Your task to perform on an android device: Open notification settings Image 0: 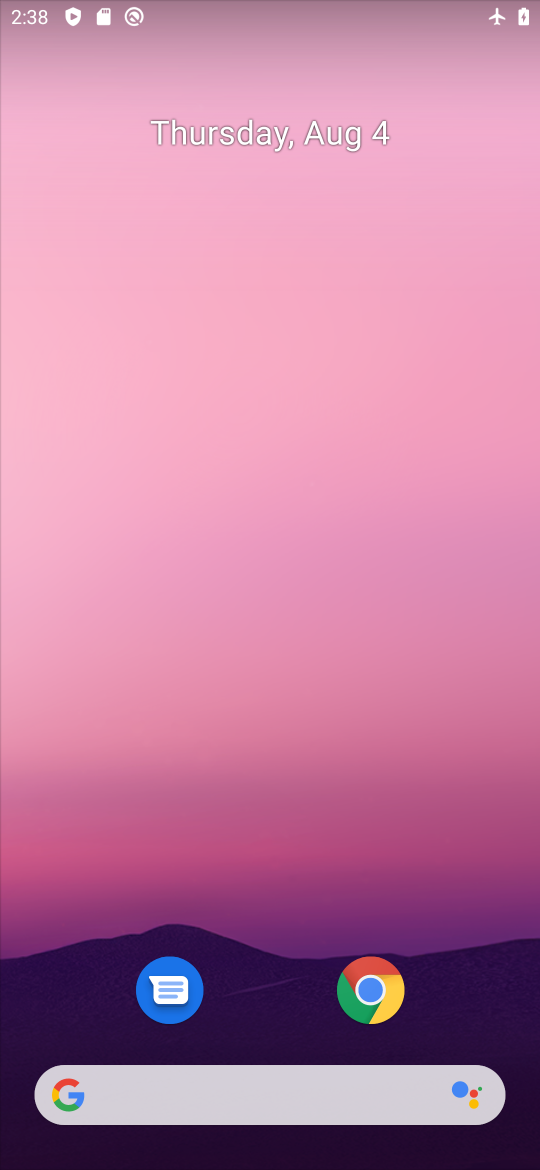
Step 0: drag from (286, 1062) to (287, 132)
Your task to perform on an android device: Open notification settings Image 1: 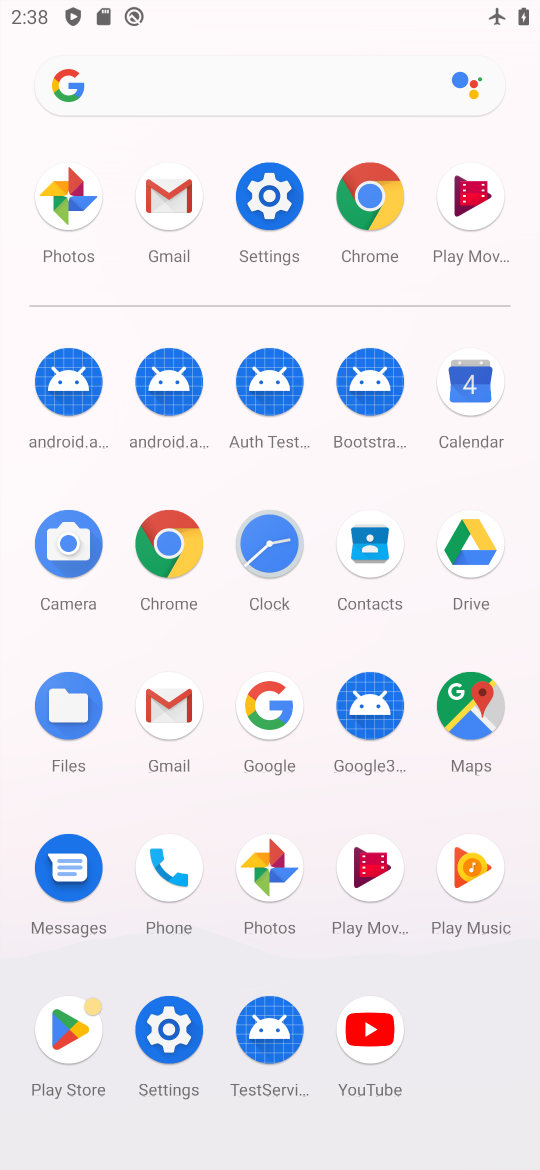
Step 1: click (281, 303)
Your task to perform on an android device: Open notification settings Image 2: 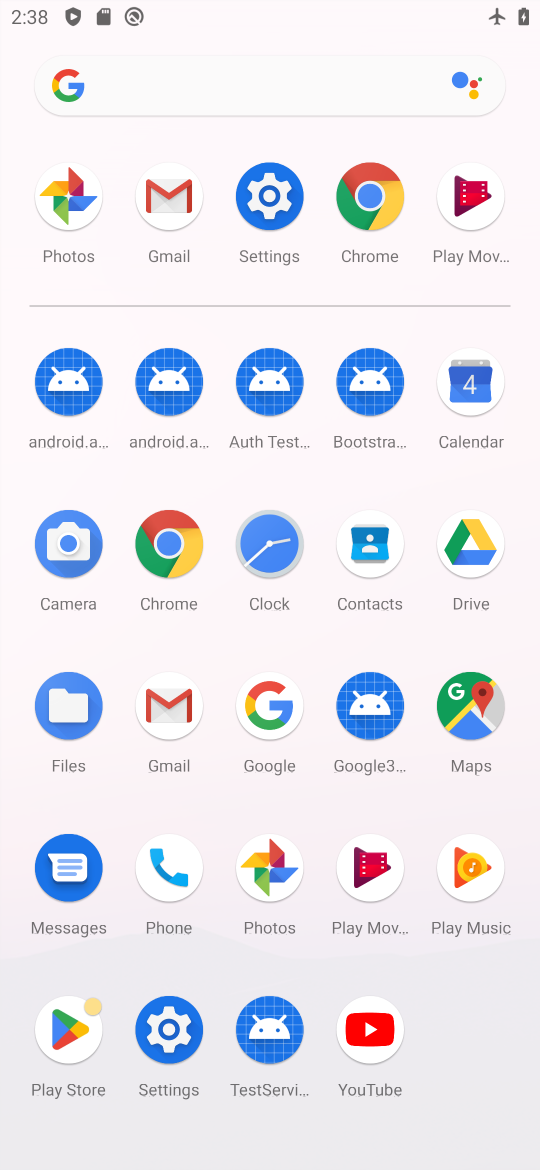
Step 2: click (281, 236)
Your task to perform on an android device: Open notification settings Image 3: 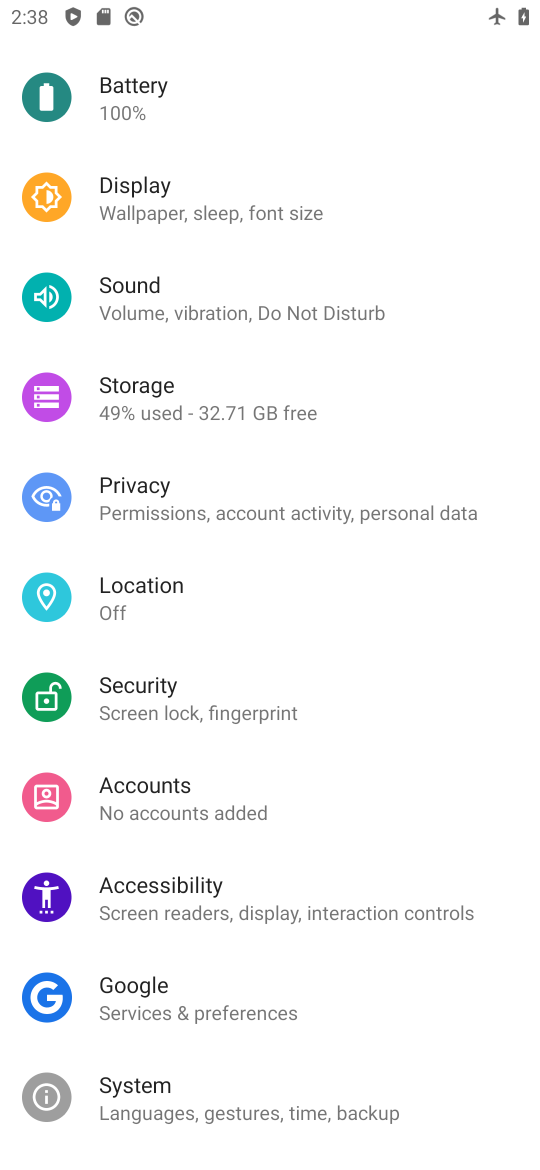
Step 3: task complete